Your task to perform on an android device: Open the stopwatch Image 0: 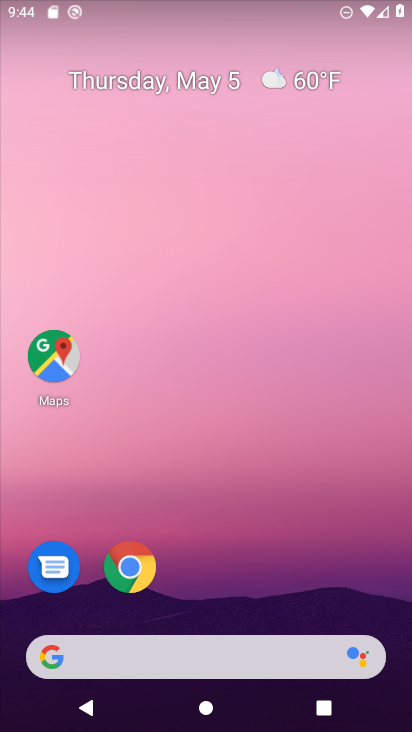
Step 0: drag from (224, 729) to (225, 156)
Your task to perform on an android device: Open the stopwatch Image 1: 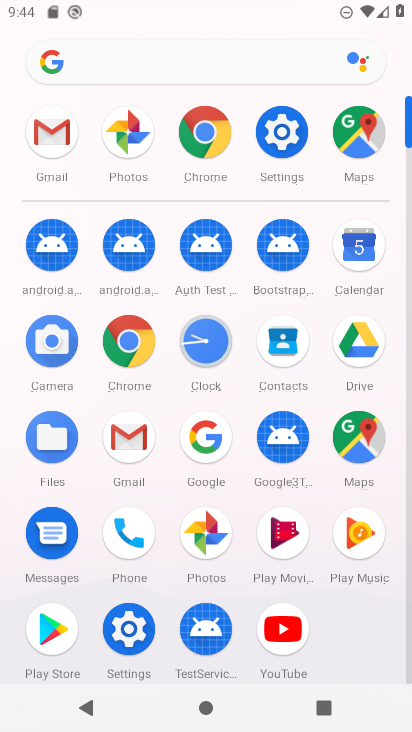
Step 1: click (205, 341)
Your task to perform on an android device: Open the stopwatch Image 2: 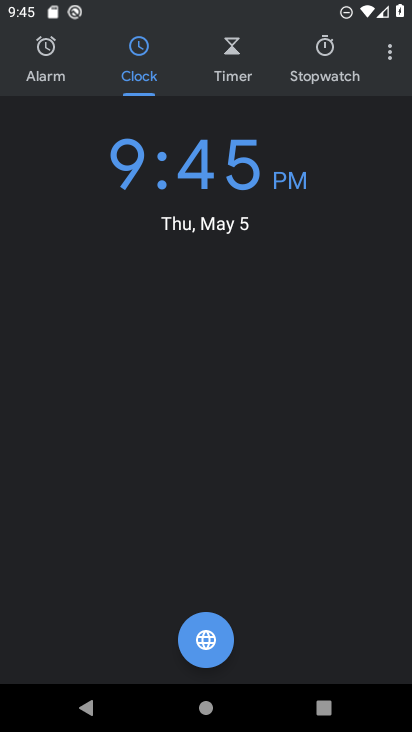
Step 2: click (328, 47)
Your task to perform on an android device: Open the stopwatch Image 3: 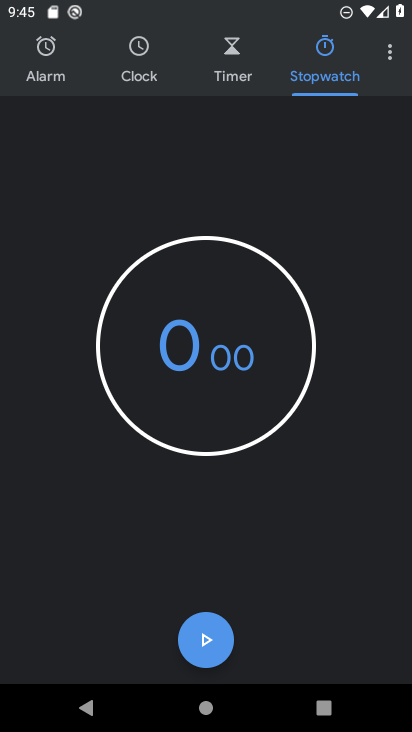
Step 3: task complete